Your task to perform on an android device: See recent photos Image 0: 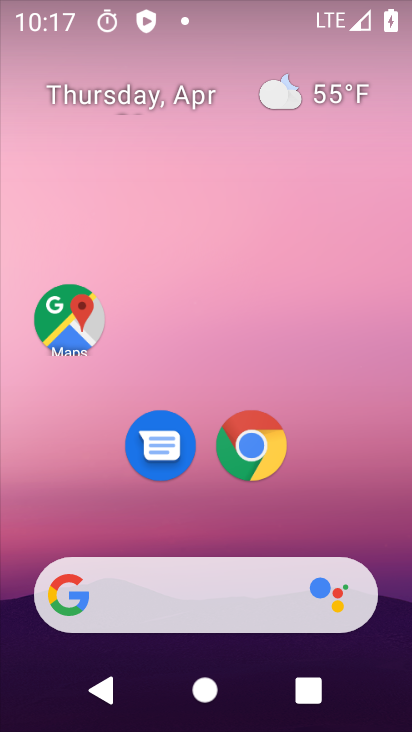
Step 0: drag from (380, 484) to (398, 34)
Your task to perform on an android device: See recent photos Image 1: 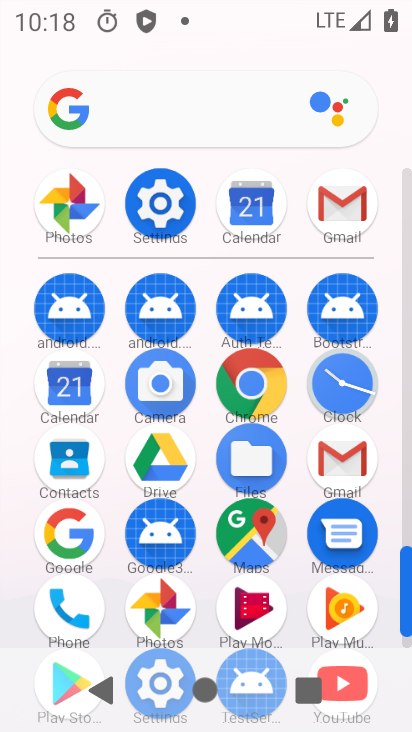
Step 1: click (70, 203)
Your task to perform on an android device: See recent photos Image 2: 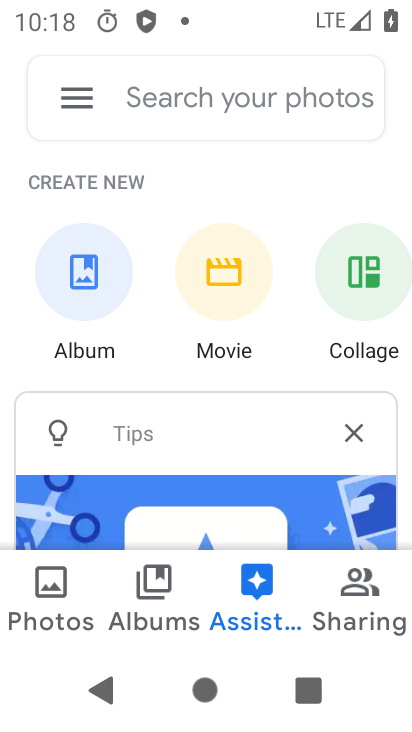
Step 2: click (74, 105)
Your task to perform on an android device: See recent photos Image 3: 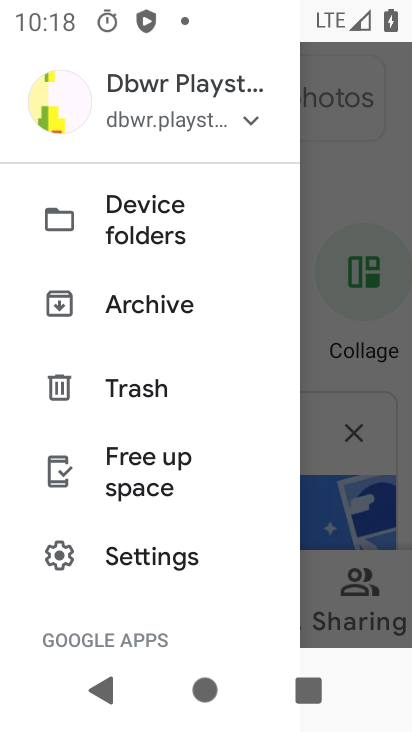
Step 3: task complete